Your task to perform on an android device: Open the phone app and click the voicemail tab. Image 0: 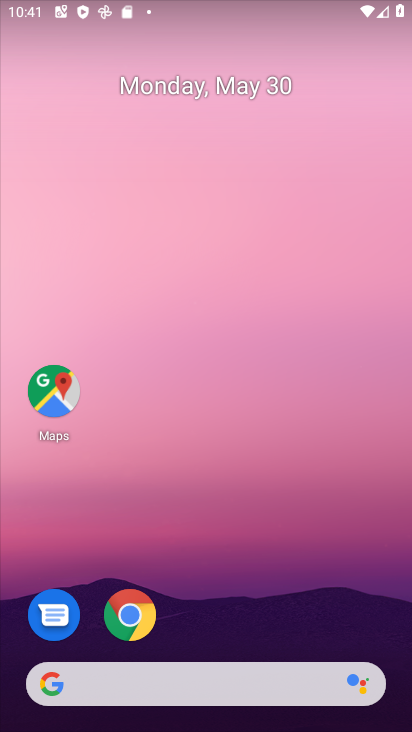
Step 0: drag from (257, 428) to (218, 39)
Your task to perform on an android device: Open the phone app and click the voicemail tab. Image 1: 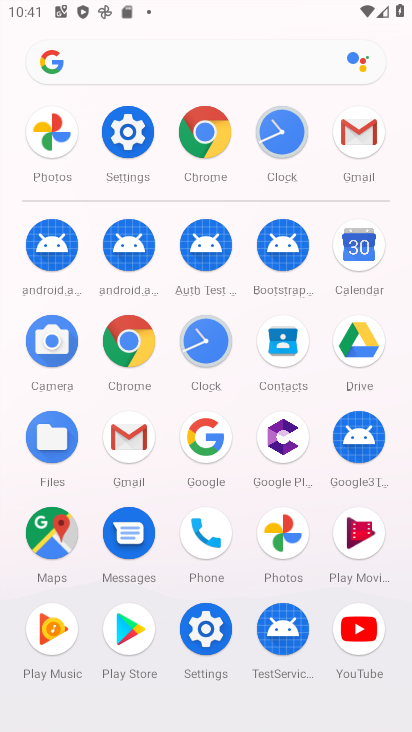
Step 1: click (227, 530)
Your task to perform on an android device: Open the phone app and click the voicemail tab. Image 2: 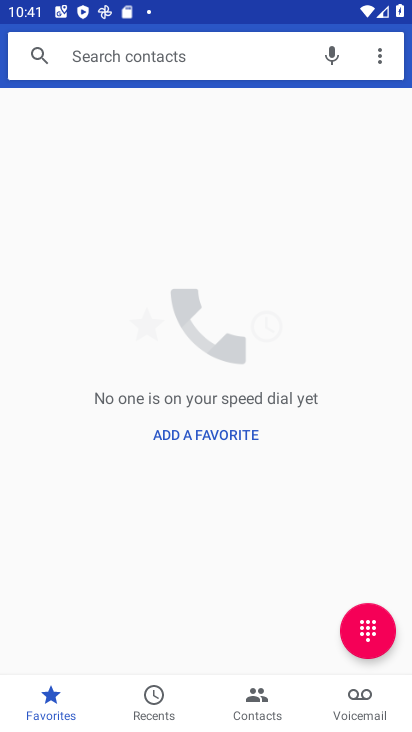
Step 2: click (363, 704)
Your task to perform on an android device: Open the phone app and click the voicemail tab. Image 3: 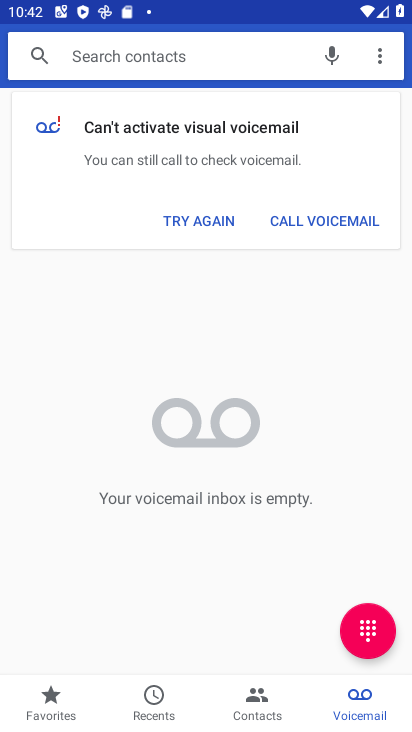
Step 3: task complete